Your task to perform on an android device: turn on showing notifications on the lock screen Image 0: 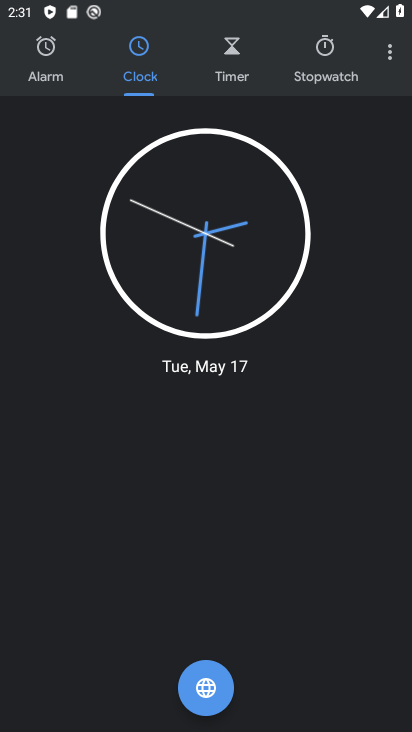
Step 0: press home button
Your task to perform on an android device: turn on showing notifications on the lock screen Image 1: 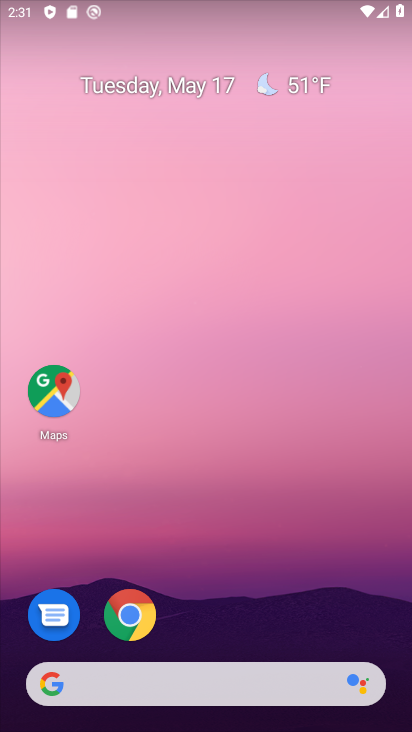
Step 1: drag from (223, 643) to (253, 134)
Your task to perform on an android device: turn on showing notifications on the lock screen Image 2: 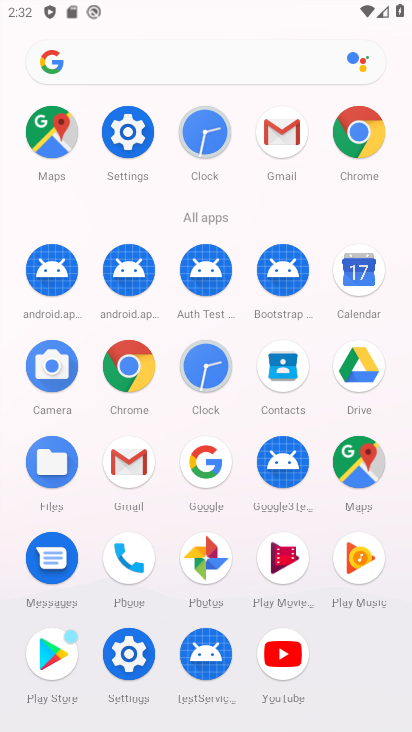
Step 2: click (124, 126)
Your task to perform on an android device: turn on showing notifications on the lock screen Image 3: 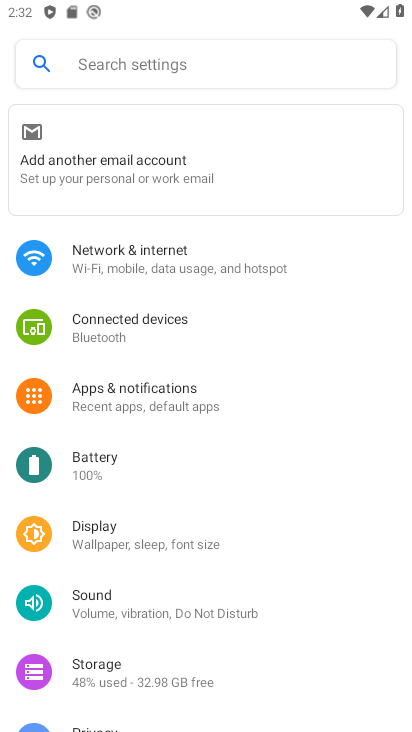
Step 3: click (179, 390)
Your task to perform on an android device: turn on showing notifications on the lock screen Image 4: 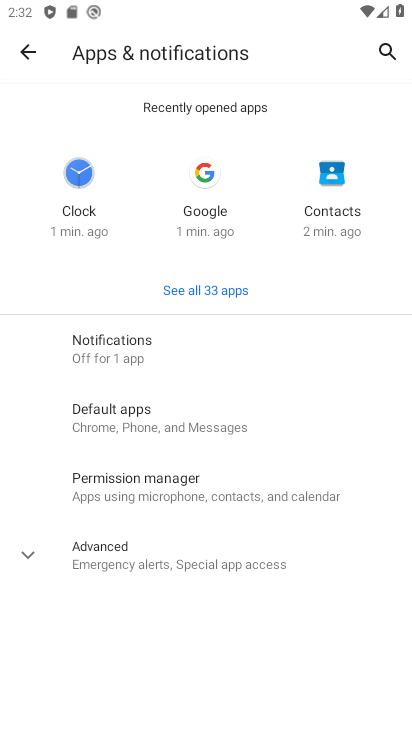
Step 4: click (170, 341)
Your task to perform on an android device: turn on showing notifications on the lock screen Image 5: 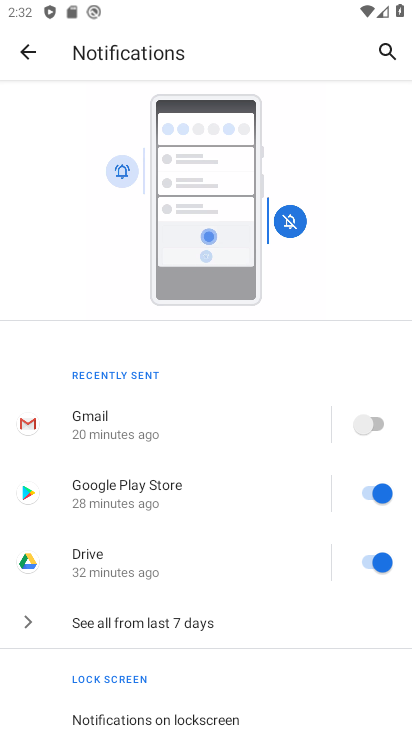
Step 5: click (237, 714)
Your task to perform on an android device: turn on showing notifications on the lock screen Image 6: 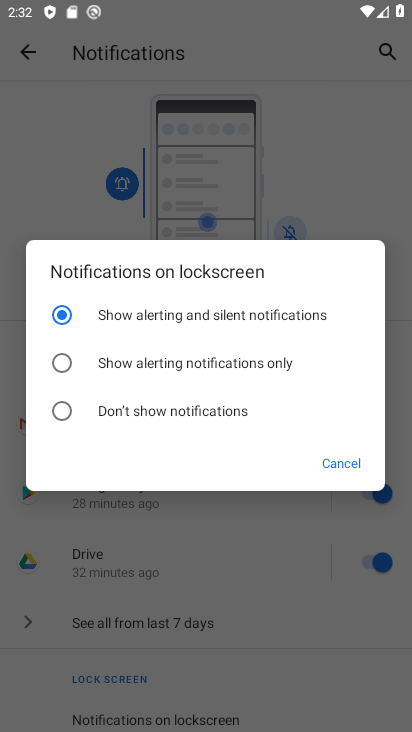
Step 6: click (66, 357)
Your task to perform on an android device: turn on showing notifications on the lock screen Image 7: 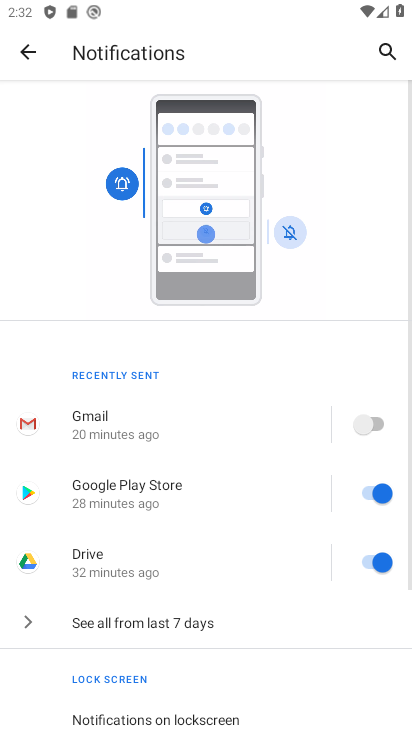
Step 7: task complete